Your task to perform on an android device: toggle show notifications on the lock screen Image 0: 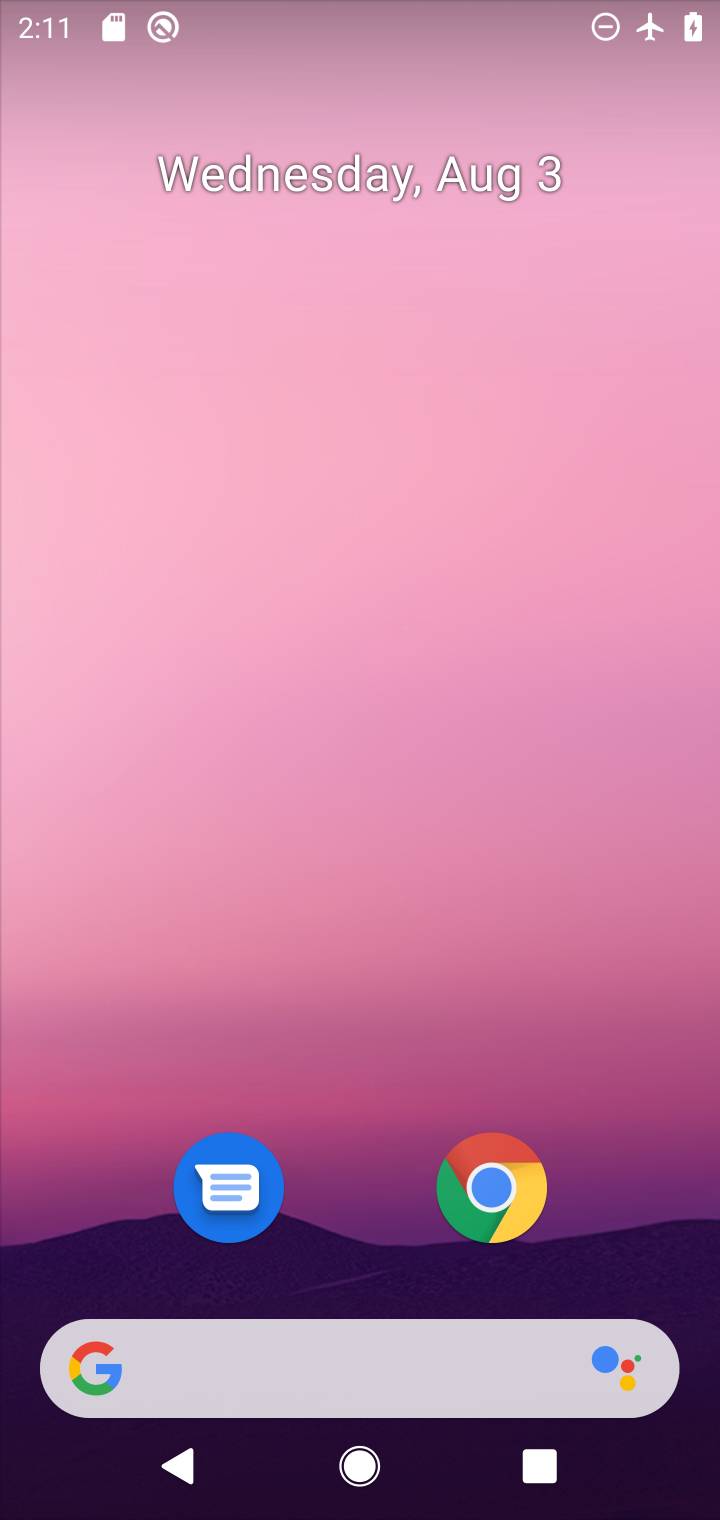
Step 0: drag from (427, 993) to (417, 17)
Your task to perform on an android device: toggle show notifications on the lock screen Image 1: 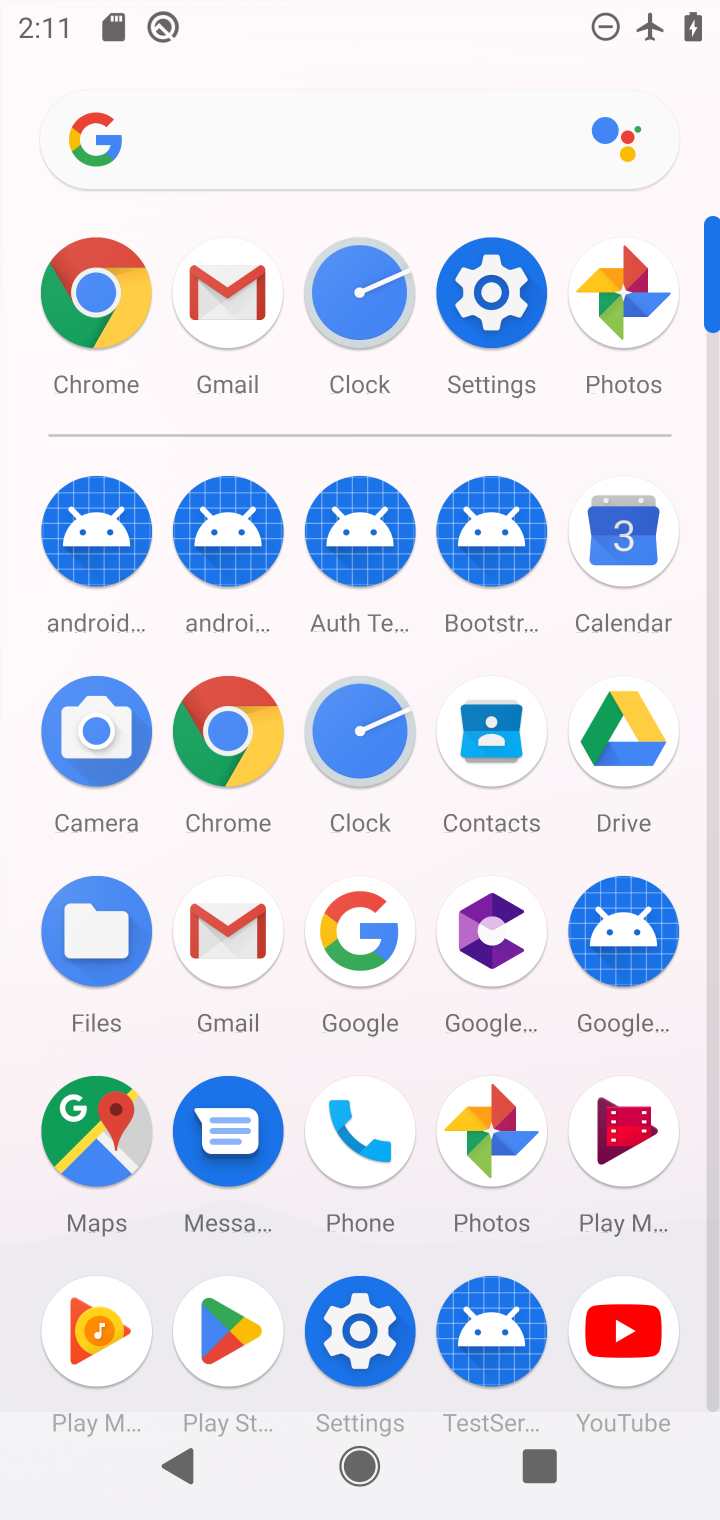
Step 1: click (488, 274)
Your task to perform on an android device: toggle show notifications on the lock screen Image 2: 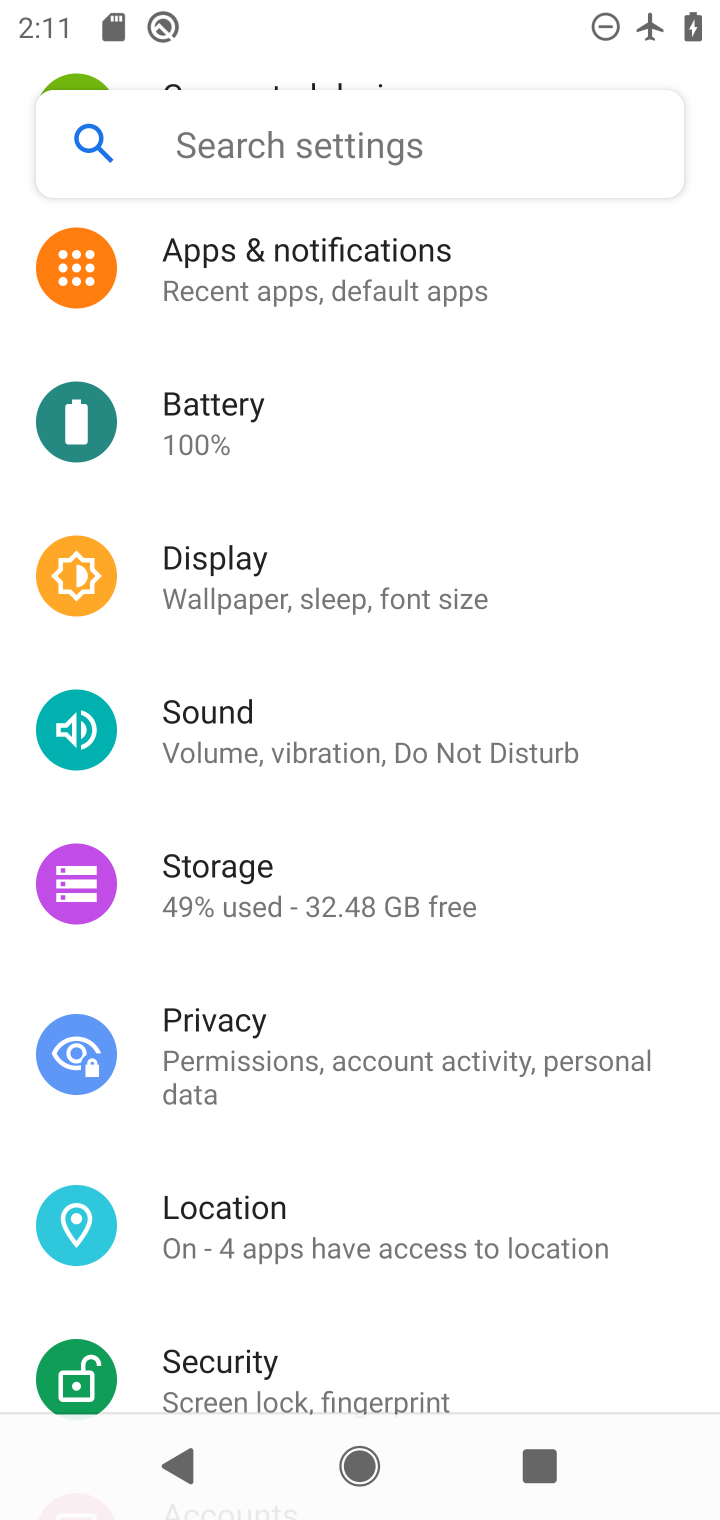
Step 2: click (488, 274)
Your task to perform on an android device: toggle show notifications on the lock screen Image 3: 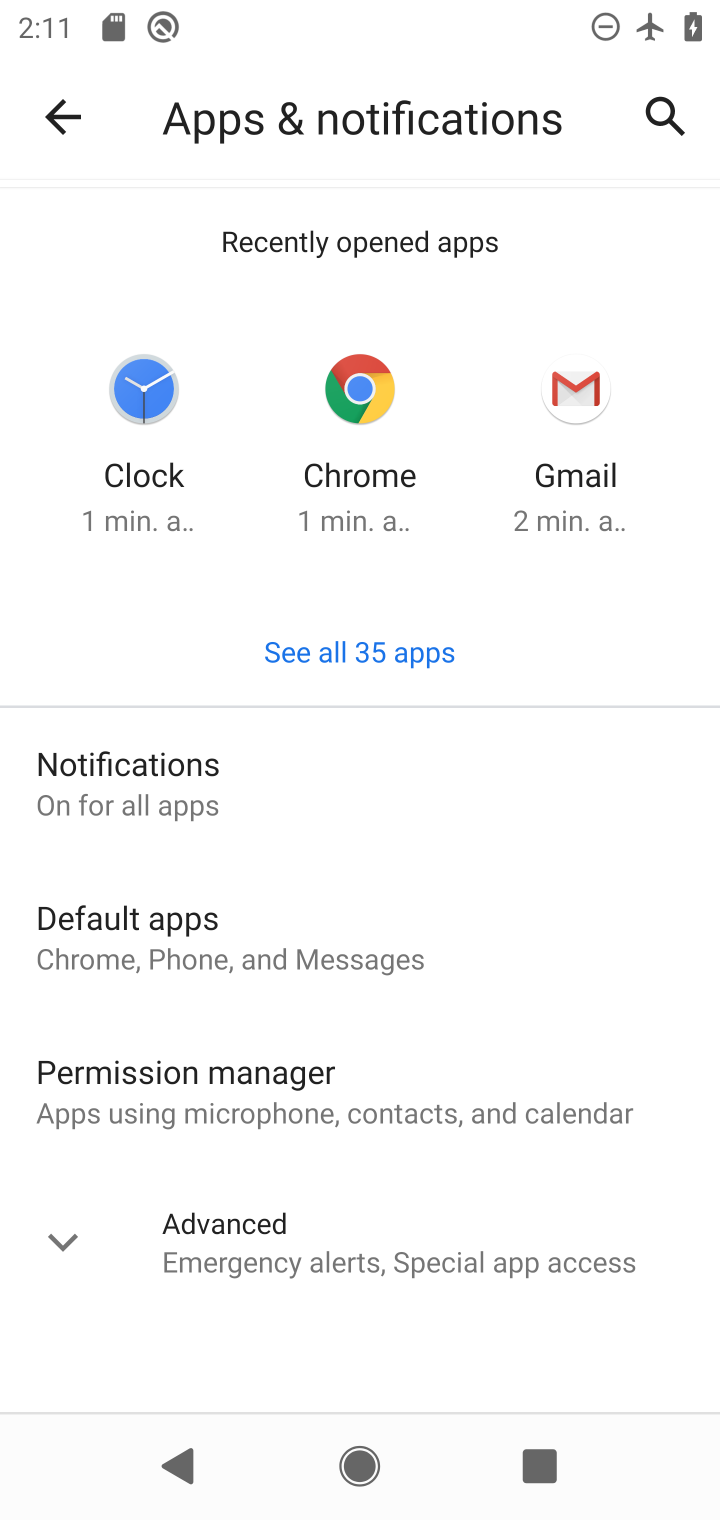
Step 3: click (159, 789)
Your task to perform on an android device: toggle show notifications on the lock screen Image 4: 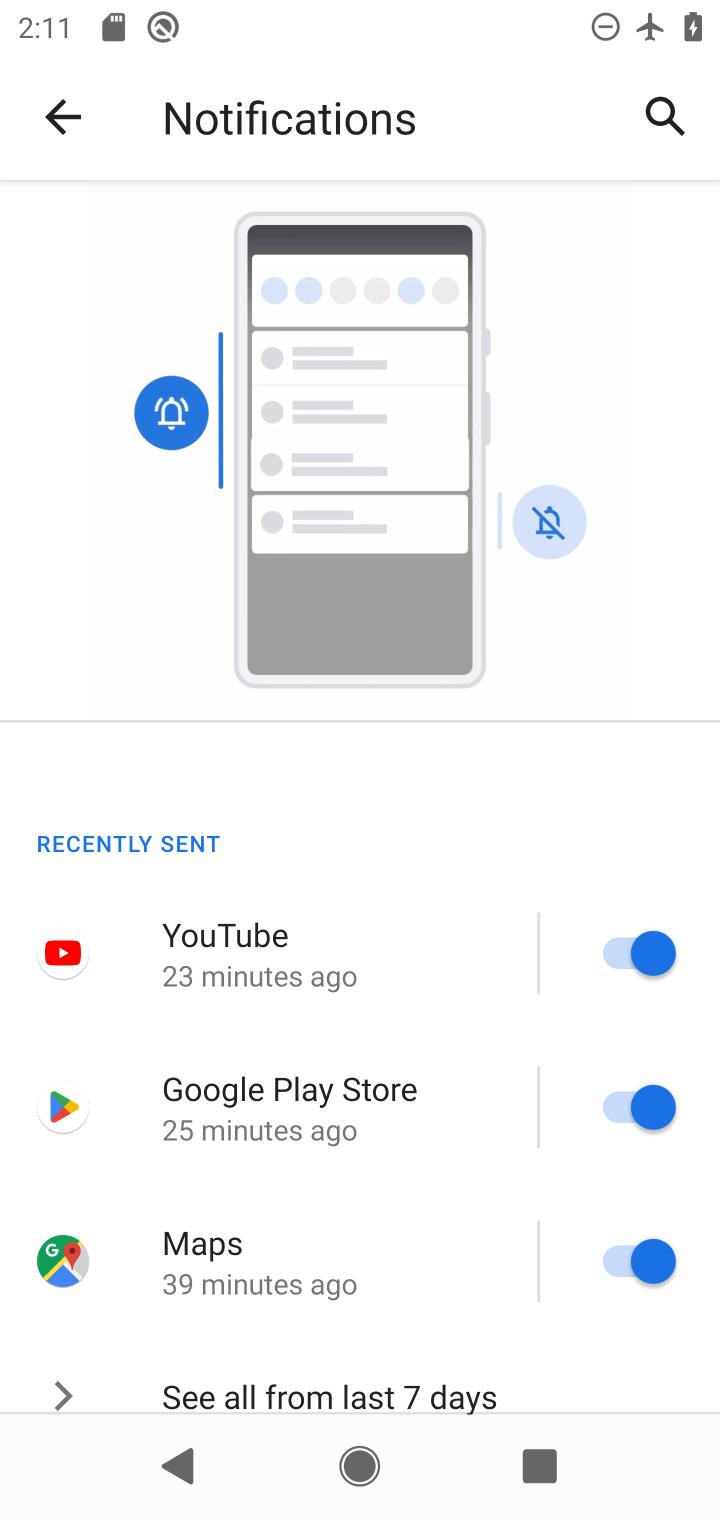
Step 4: drag from (427, 1035) to (488, 55)
Your task to perform on an android device: toggle show notifications on the lock screen Image 5: 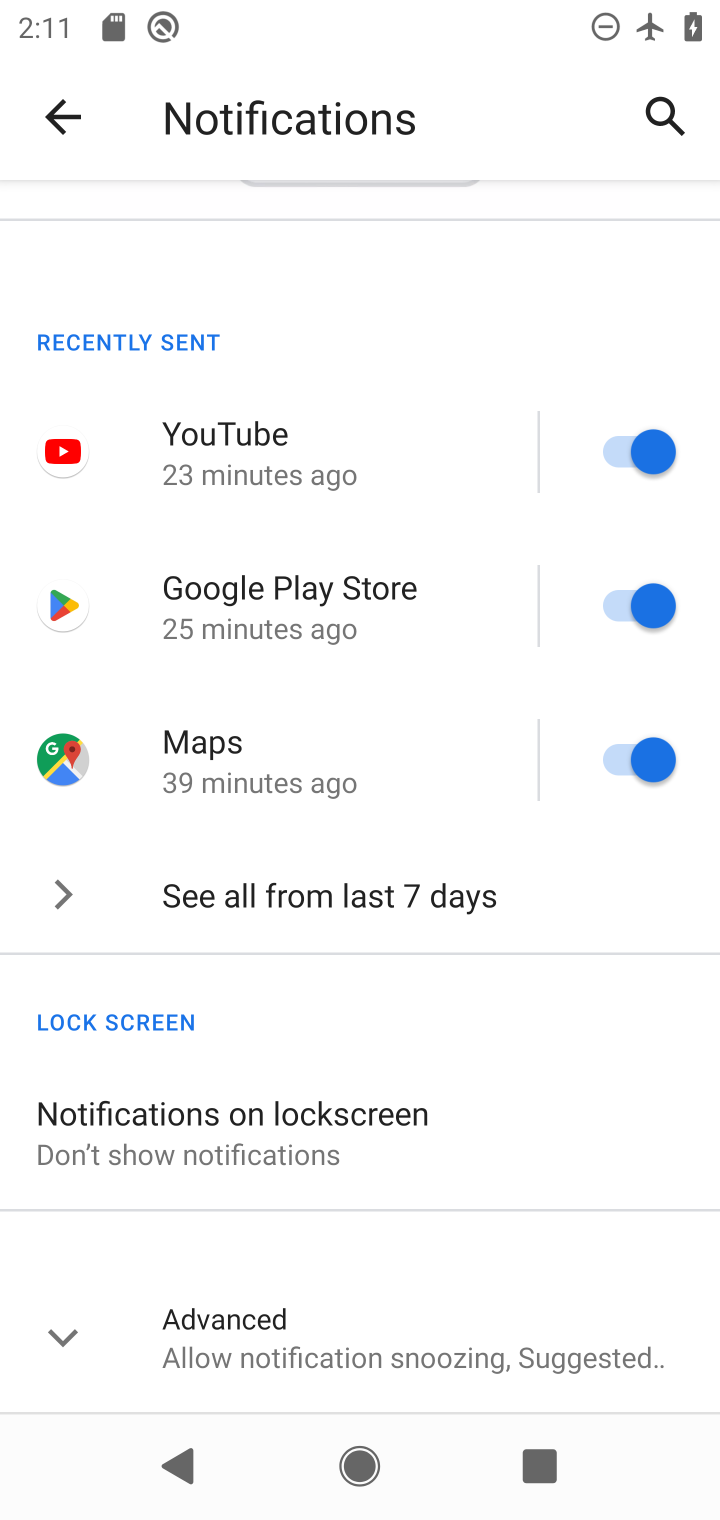
Step 5: click (54, 1307)
Your task to perform on an android device: toggle show notifications on the lock screen Image 6: 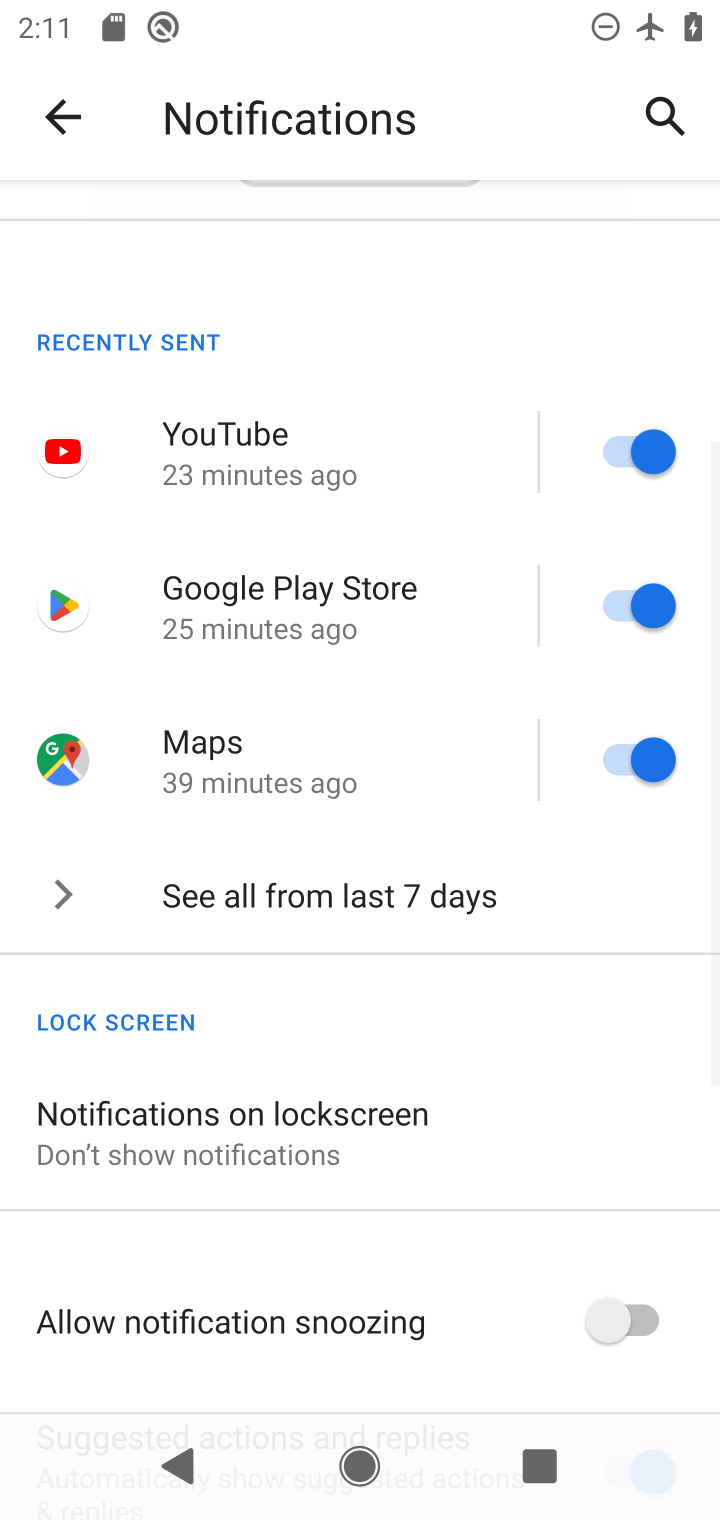
Step 6: drag from (481, 1035) to (512, 355)
Your task to perform on an android device: toggle show notifications on the lock screen Image 7: 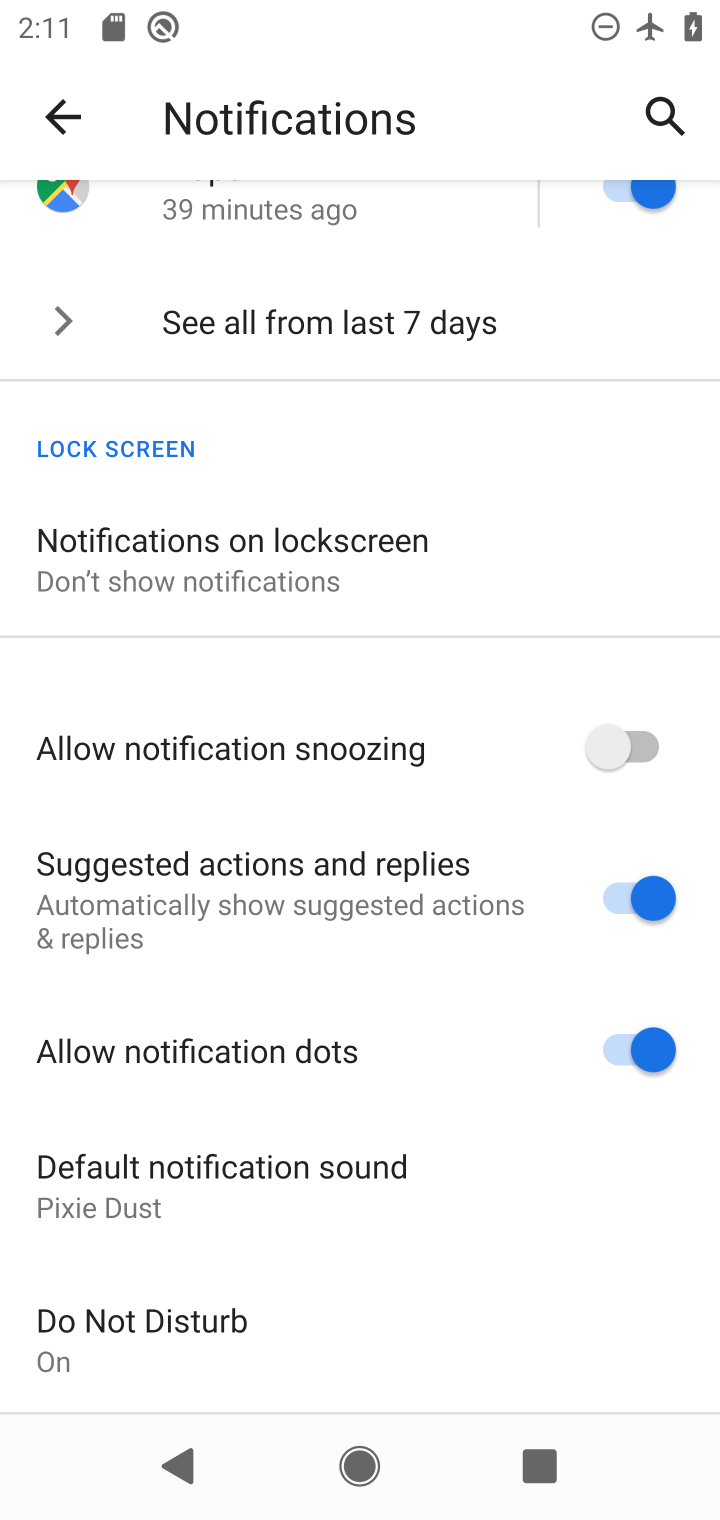
Step 7: click (400, 552)
Your task to perform on an android device: toggle show notifications on the lock screen Image 8: 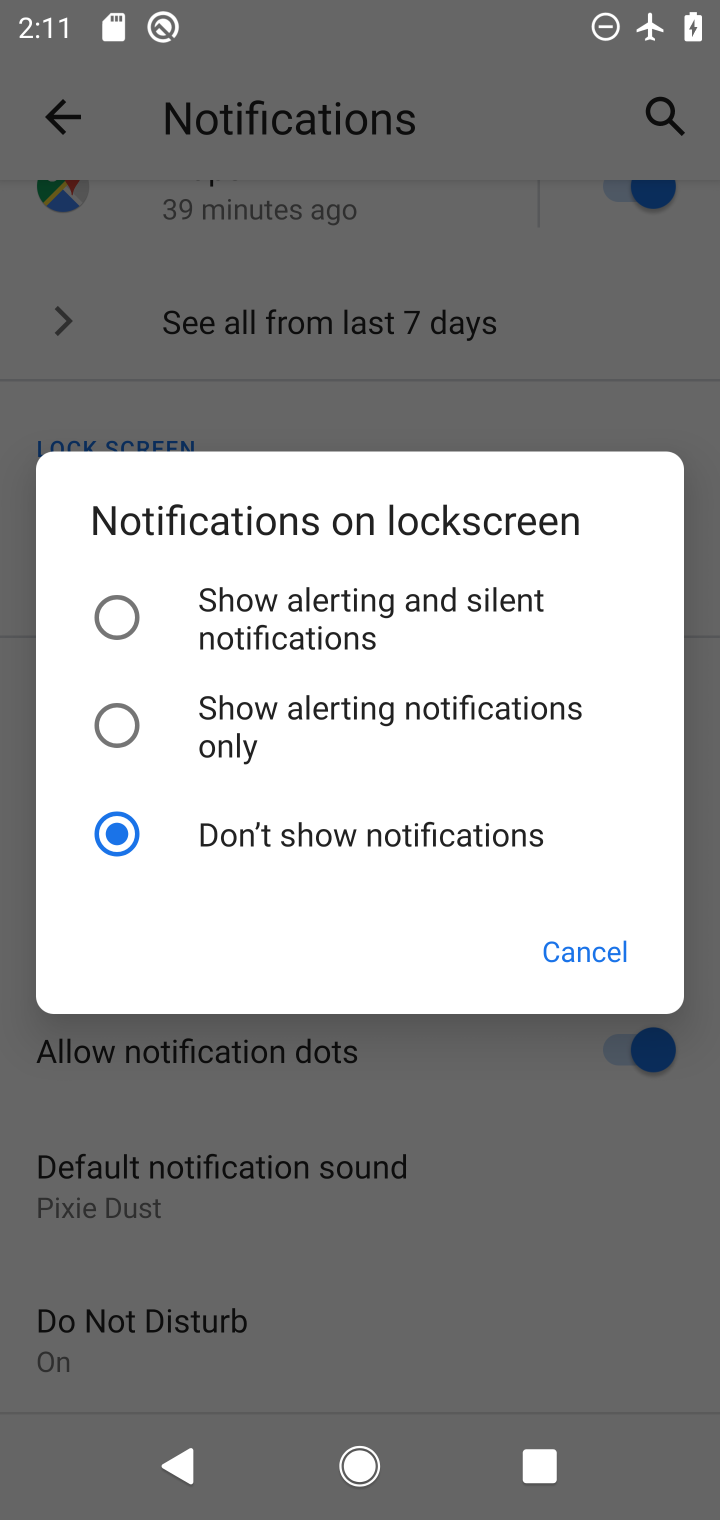
Step 8: click (123, 590)
Your task to perform on an android device: toggle show notifications on the lock screen Image 9: 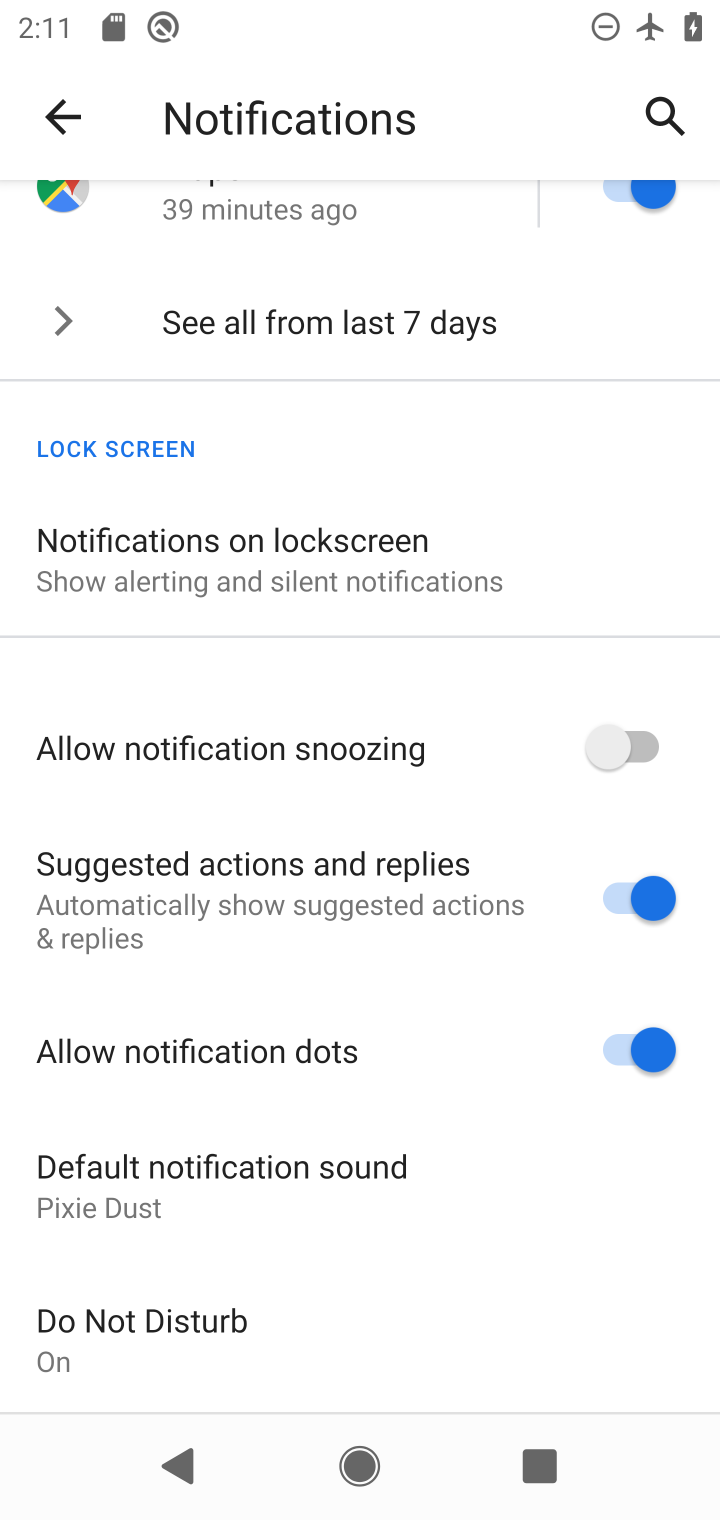
Step 9: task complete